Your task to perform on an android device: Go to Google maps Image 0: 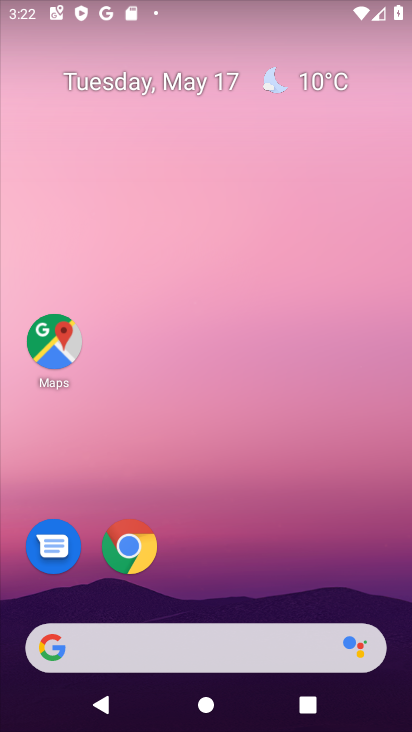
Step 0: drag from (216, 568) to (248, 64)
Your task to perform on an android device: Go to Google maps Image 1: 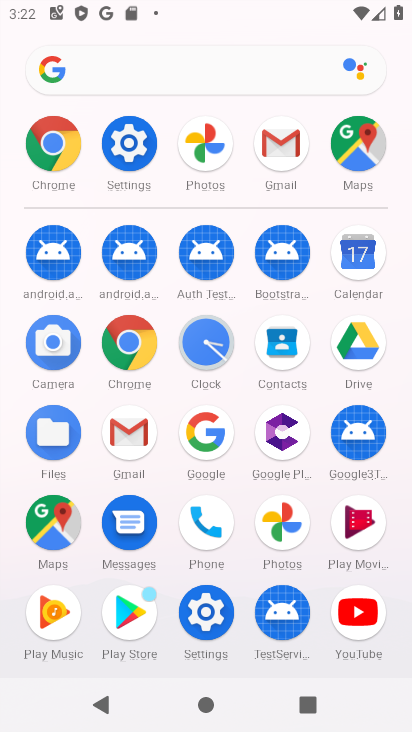
Step 1: click (46, 528)
Your task to perform on an android device: Go to Google maps Image 2: 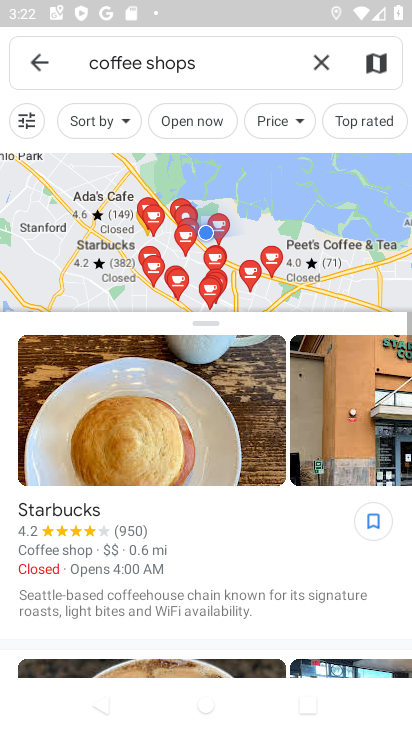
Step 2: click (30, 66)
Your task to perform on an android device: Go to Google maps Image 3: 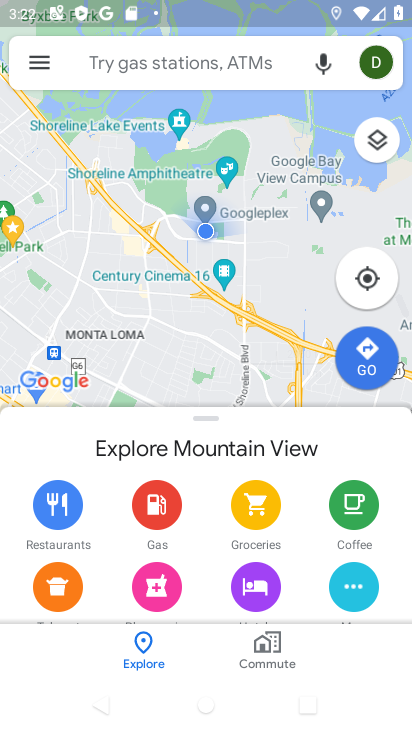
Step 3: task complete